Your task to perform on an android device: How much does a 2 bedroom apartment rent for in Boston? Image 0: 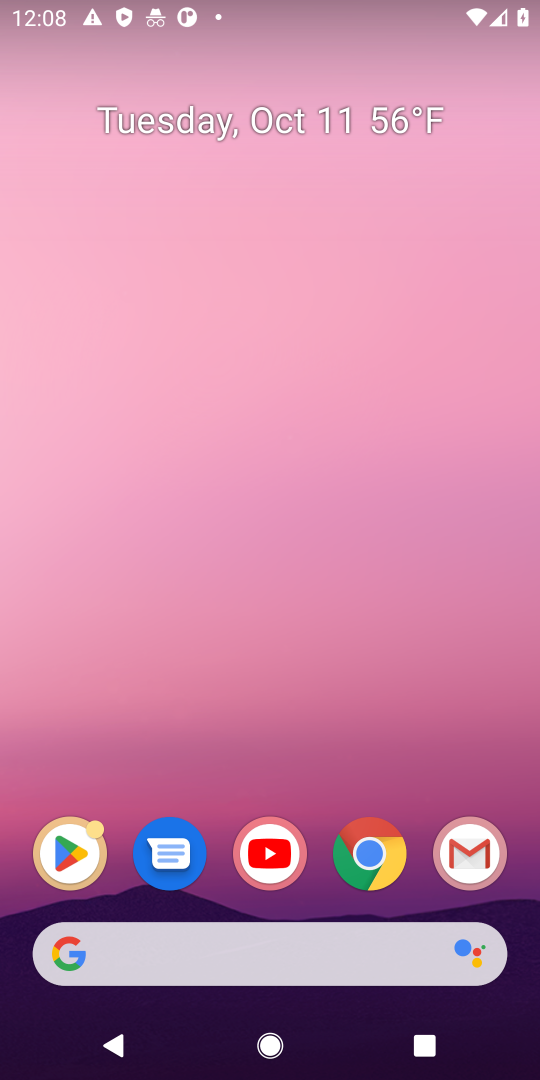
Step 0: click (377, 849)
Your task to perform on an android device: How much does a 2 bedroom apartment rent for in Boston? Image 1: 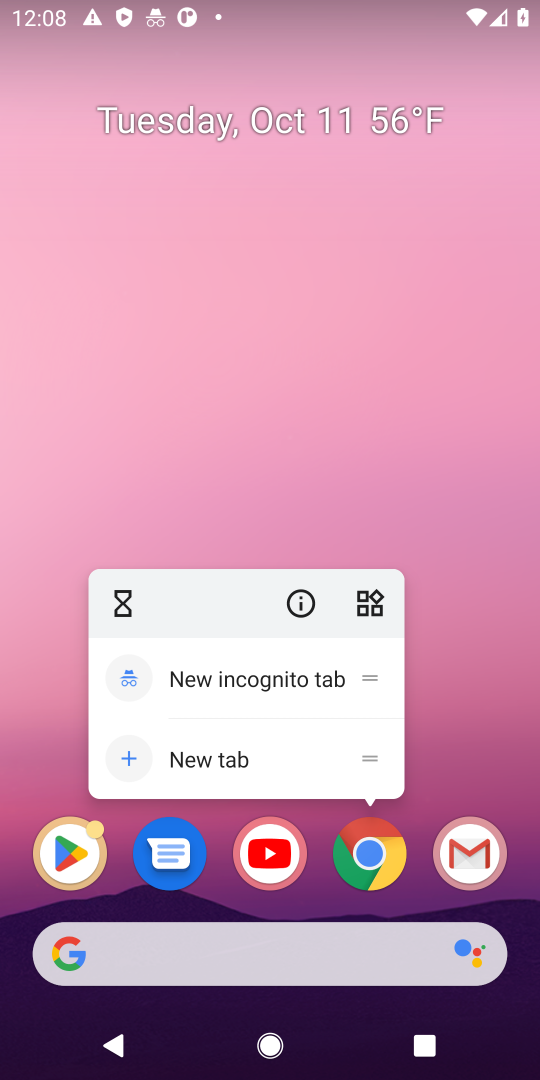
Step 1: click (371, 851)
Your task to perform on an android device: How much does a 2 bedroom apartment rent for in Boston? Image 2: 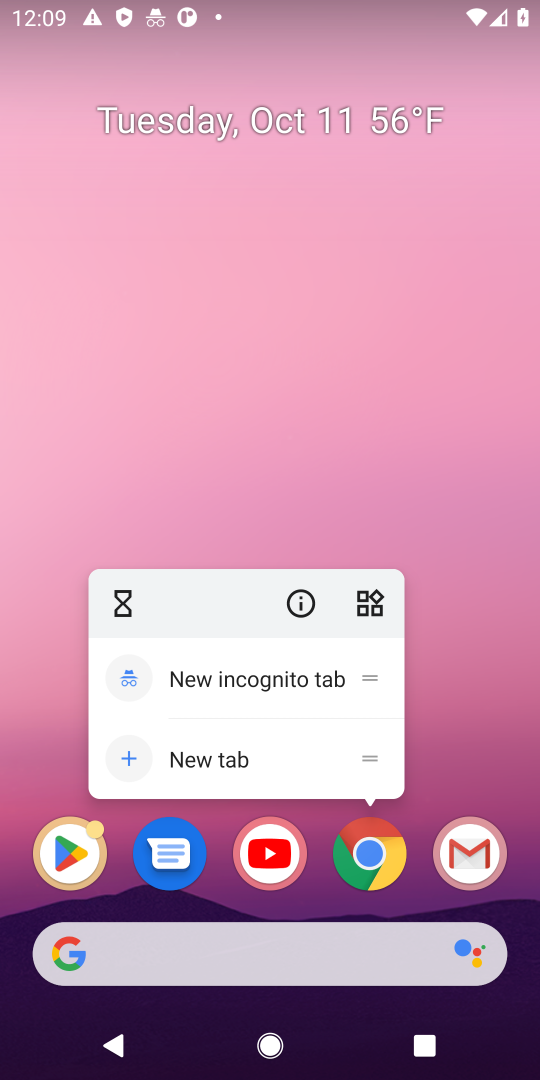
Step 2: click (368, 842)
Your task to perform on an android device: How much does a 2 bedroom apartment rent for in Boston? Image 3: 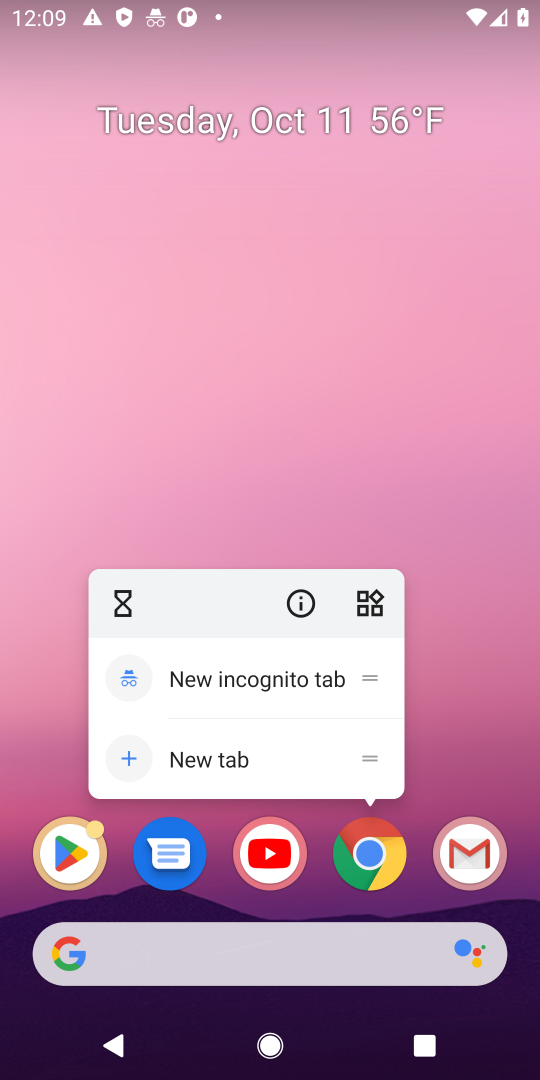
Step 3: click (386, 858)
Your task to perform on an android device: How much does a 2 bedroom apartment rent for in Boston? Image 4: 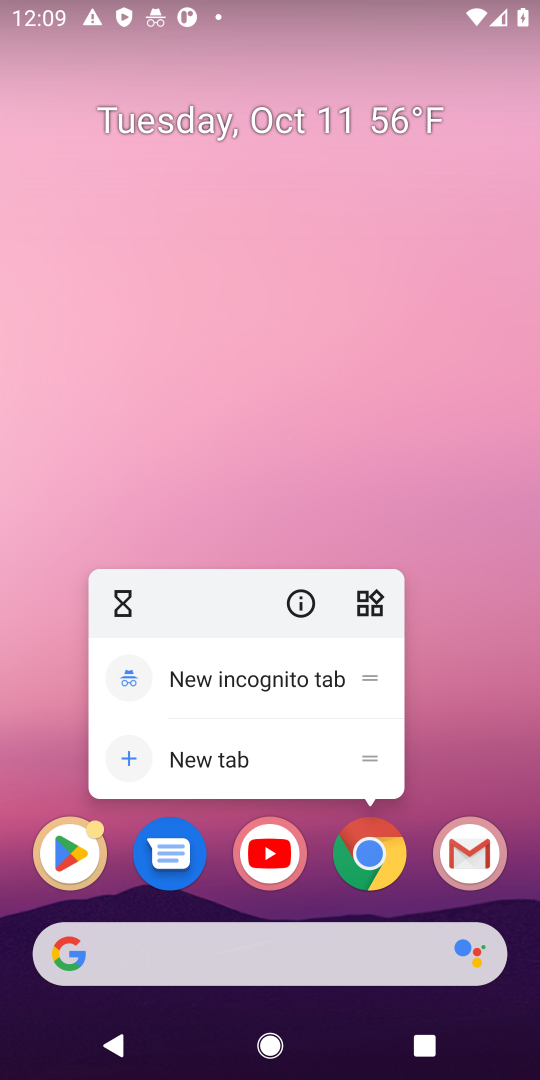
Step 4: click (446, 779)
Your task to perform on an android device: How much does a 2 bedroom apartment rent for in Boston? Image 5: 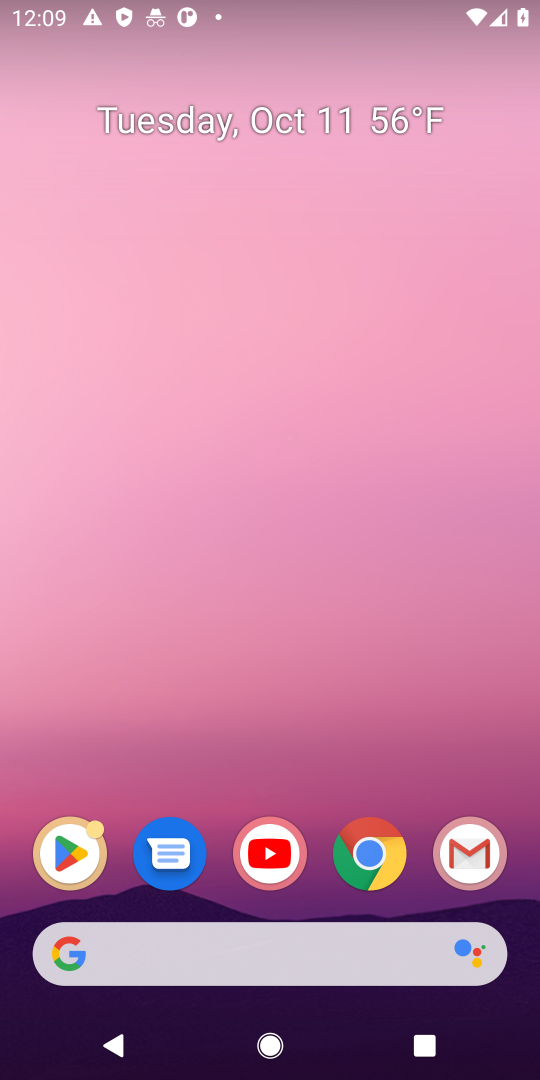
Step 5: drag from (424, 783) to (410, 8)
Your task to perform on an android device: How much does a 2 bedroom apartment rent for in Boston? Image 6: 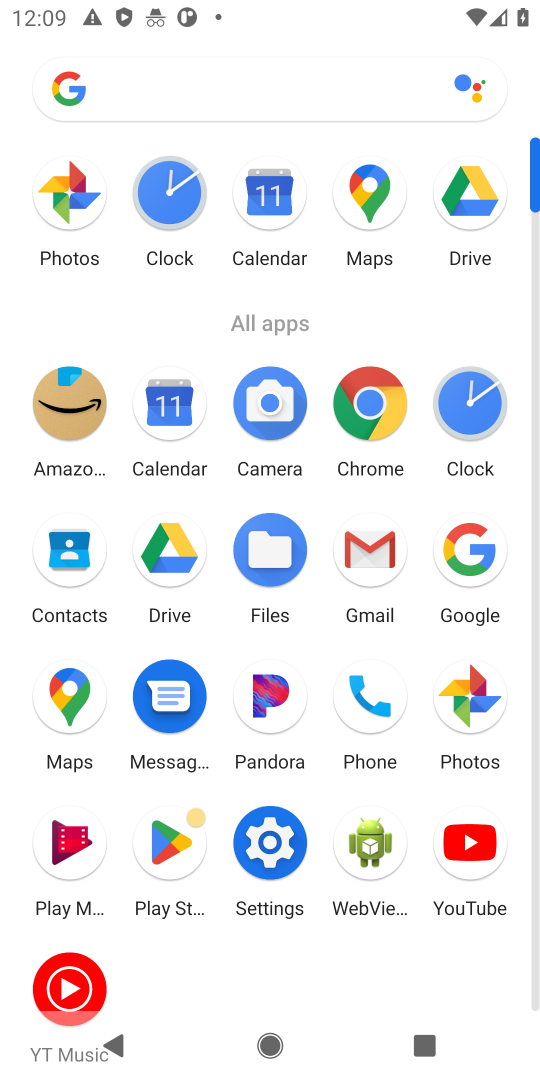
Step 6: click (370, 407)
Your task to perform on an android device: How much does a 2 bedroom apartment rent for in Boston? Image 7: 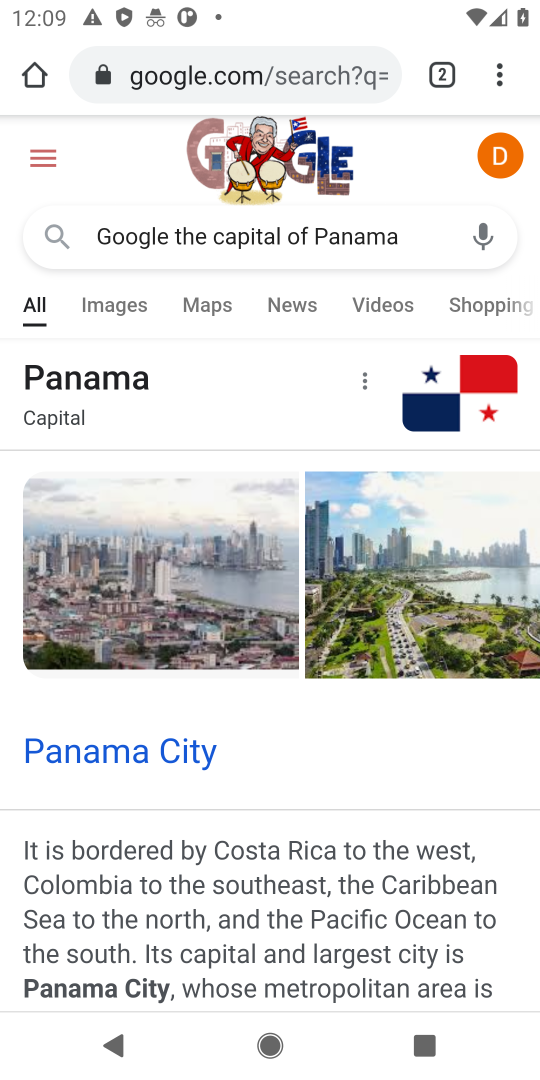
Step 7: click (266, 82)
Your task to perform on an android device: How much does a 2 bedroom apartment rent for in Boston? Image 8: 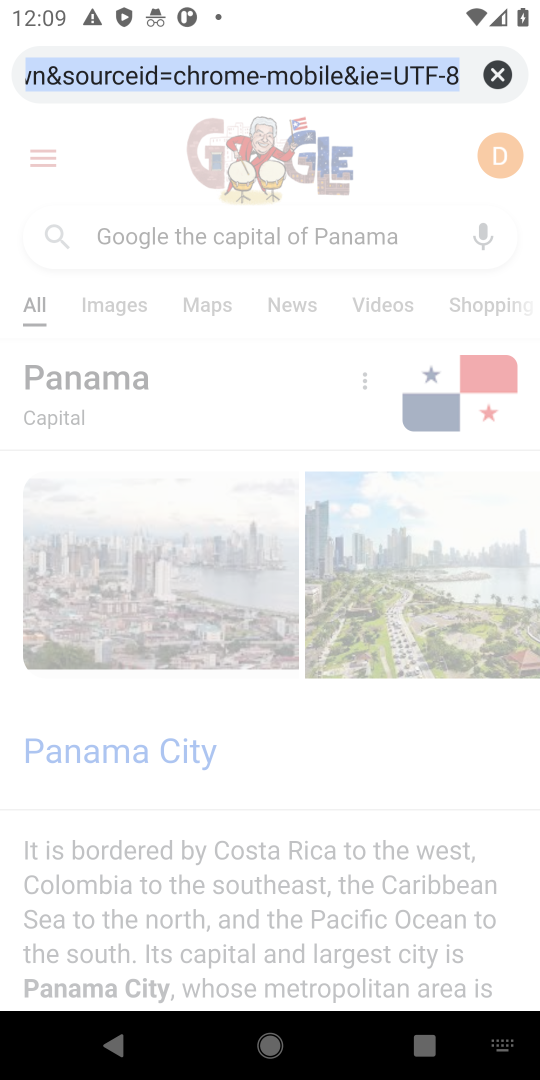
Step 8: click (493, 65)
Your task to perform on an android device: How much does a 2 bedroom apartment rent for in Boston? Image 9: 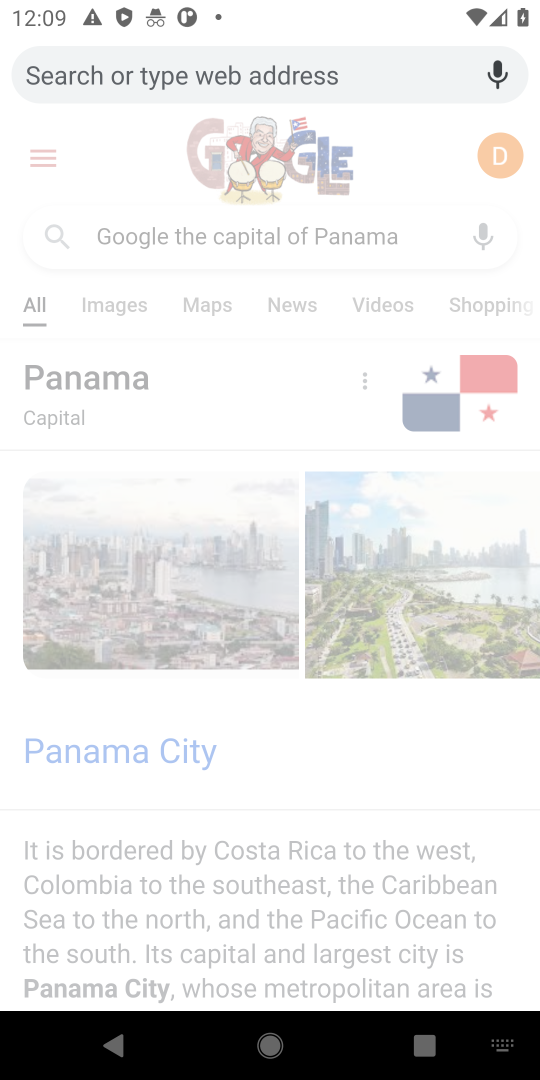
Step 9: type "How much does a 2 bedroom apartment rent for in Boston?"
Your task to perform on an android device: How much does a 2 bedroom apartment rent for in Boston? Image 10: 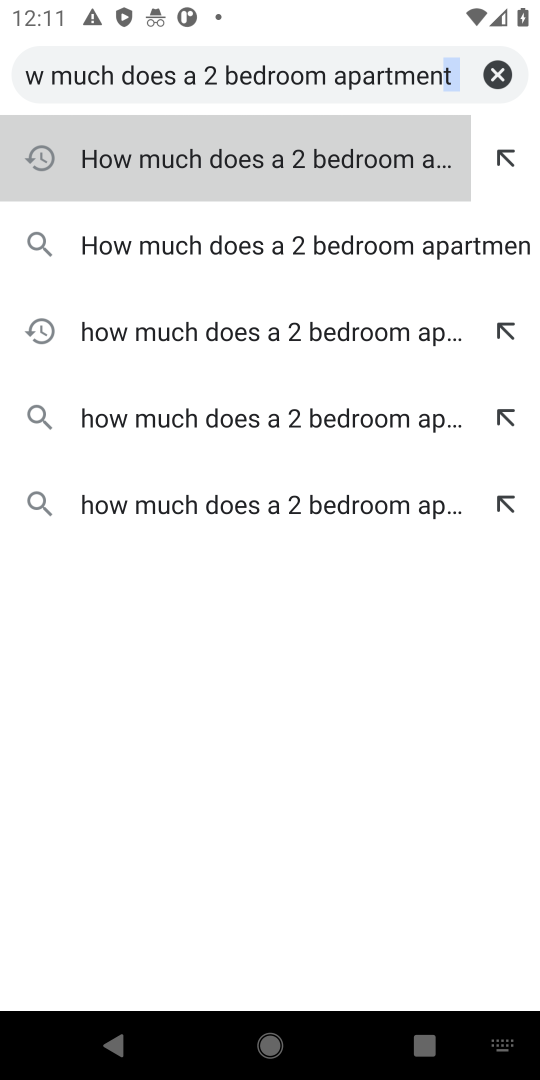
Step 10: click (379, 153)
Your task to perform on an android device: How much does a 2 bedroom apartment rent for in Boston? Image 11: 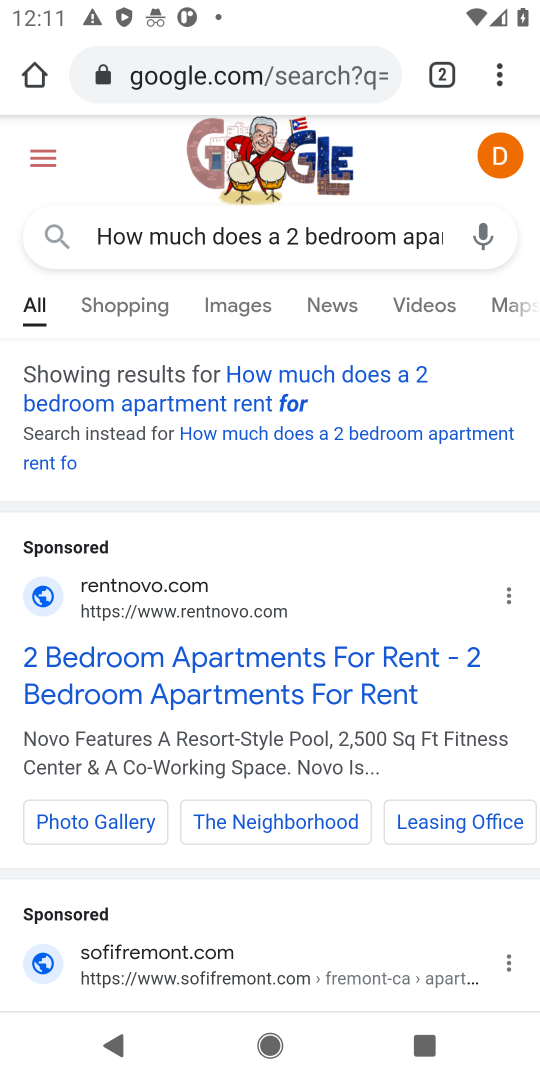
Step 11: task complete